Your task to perform on an android device: stop showing notifications on the lock screen Image 0: 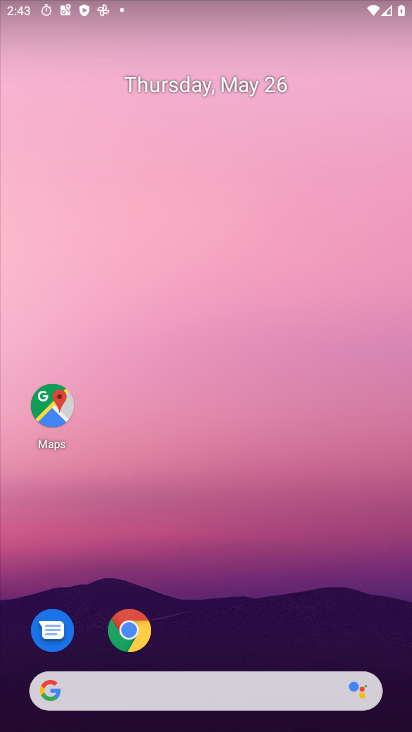
Step 0: drag from (293, 624) to (278, 306)
Your task to perform on an android device: stop showing notifications on the lock screen Image 1: 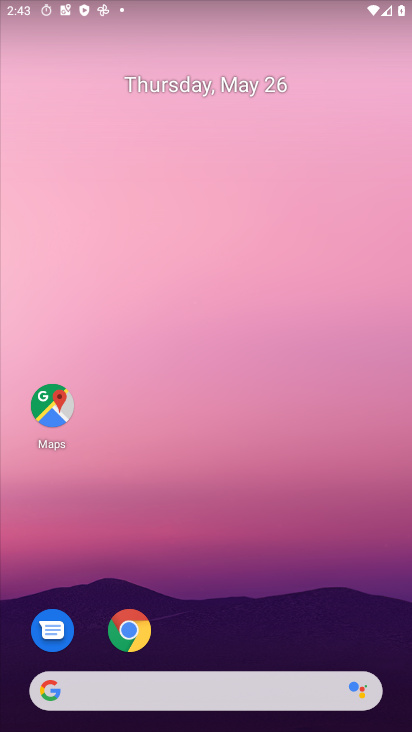
Step 1: drag from (269, 614) to (229, 138)
Your task to perform on an android device: stop showing notifications on the lock screen Image 2: 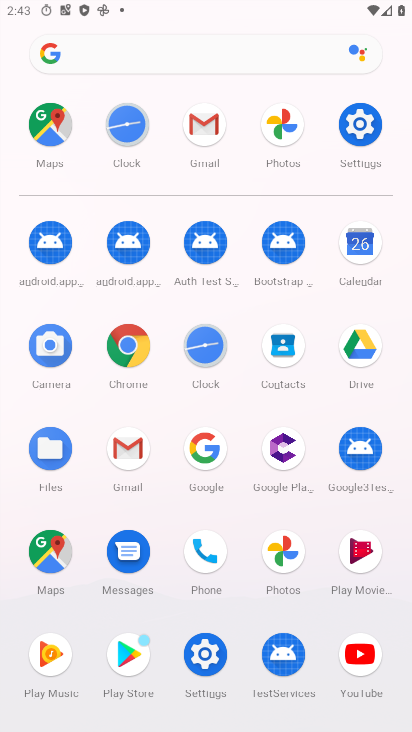
Step 2: click (344, 146)
Your task to perform on an android device: stop showing notifications on the lock screen Image 3: 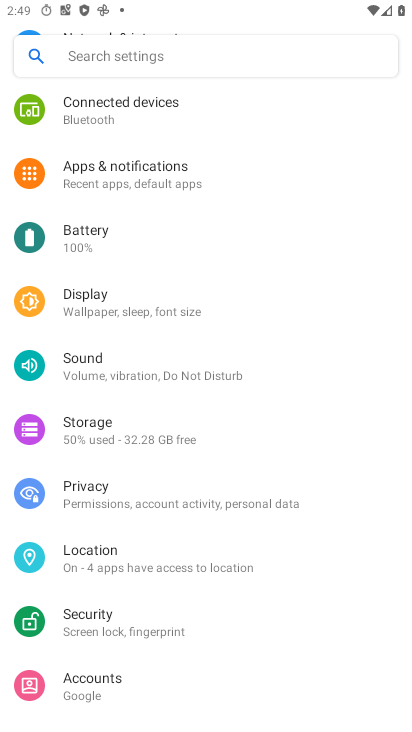
Step 3: click (153, 181)
Your task to perform on an android device: stop showing notifications on the lock screen Image 4: 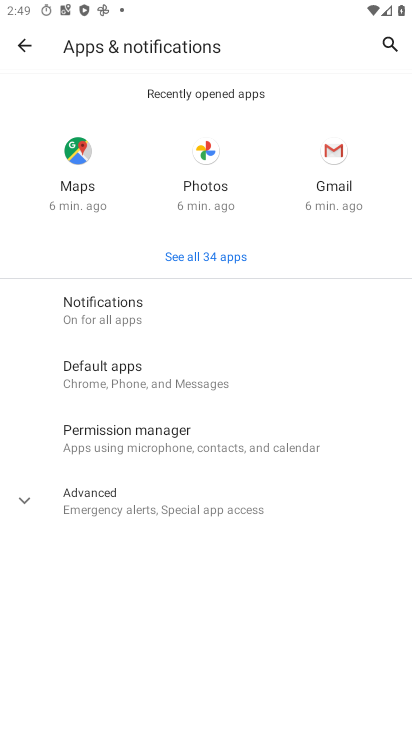
Step 4: click (96, 293)
Your task to perform on an android device: stop showing notifications on the lock screen Image 5: 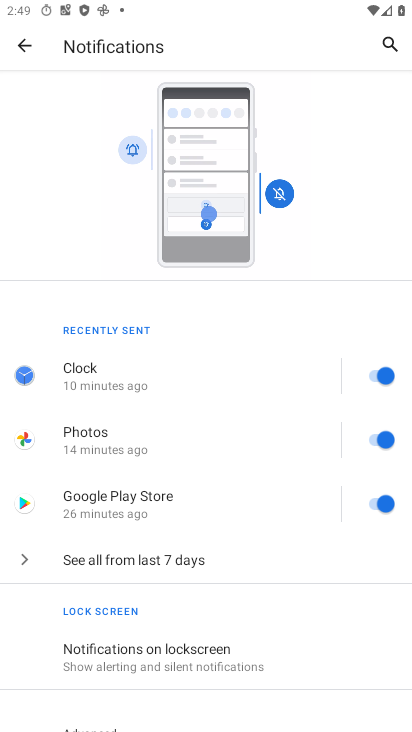
Step 5: click (153, 632)
Your task to perform on an android device: stop showing notifications on the lock screen Image 6: 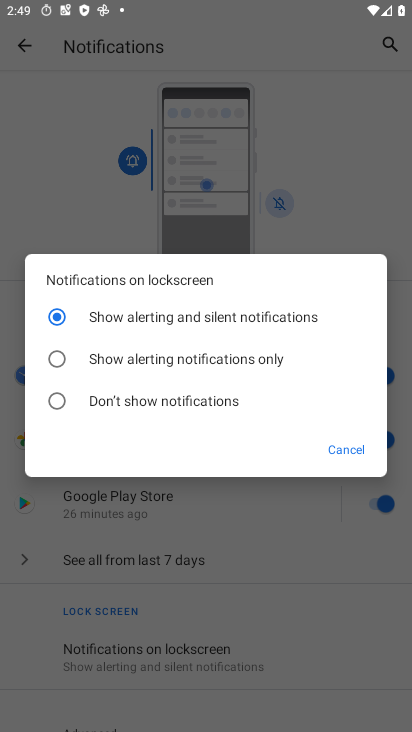
Step 6: click (98, 400)
Your task to perform on an android device: stop showing notifications on the lock screen Image 7: 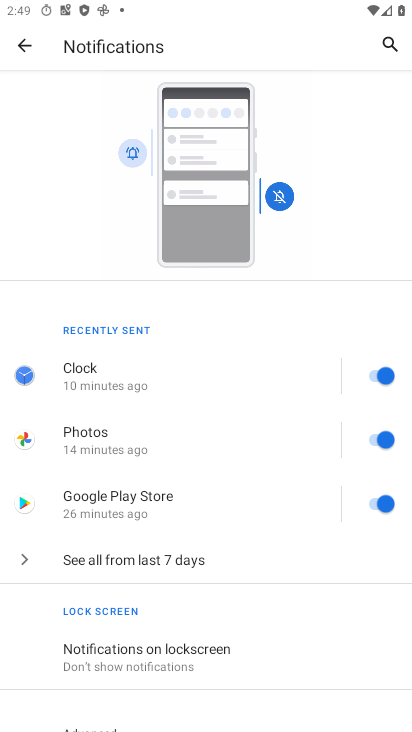
Step 7: task complete